Your task to perform on an android device: Go to Yahoo.com Image 0: 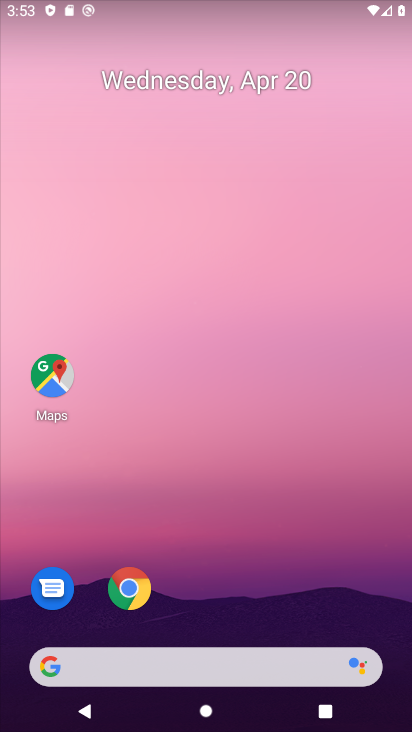
Step 0: click (150, 659)
Your task to perform on an android device: Go to Yahoo.com Image 1: 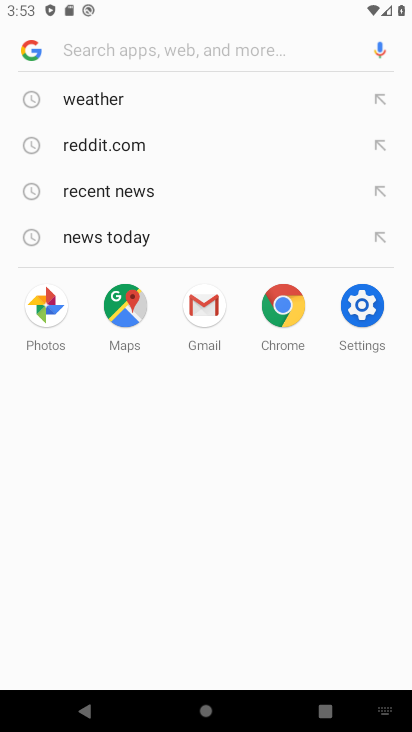
Step 1: type "Yahoo.com"
Your task to perform on an android device: Go to Yahoo.com Image 2: 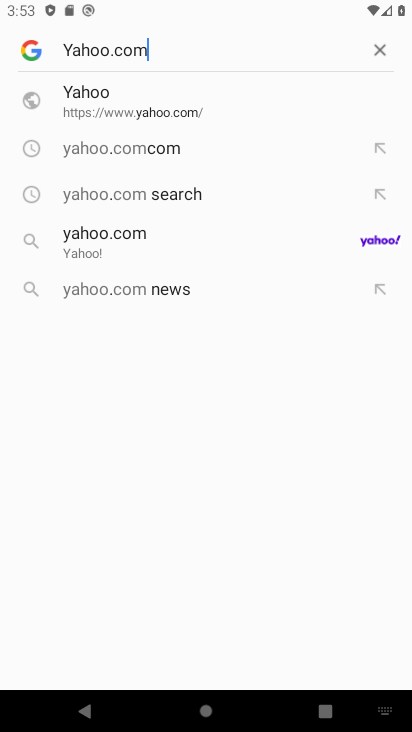
Step 2: click (145, 116)
Your task to perform on an android device: Go to Yahoo.com Image 3: 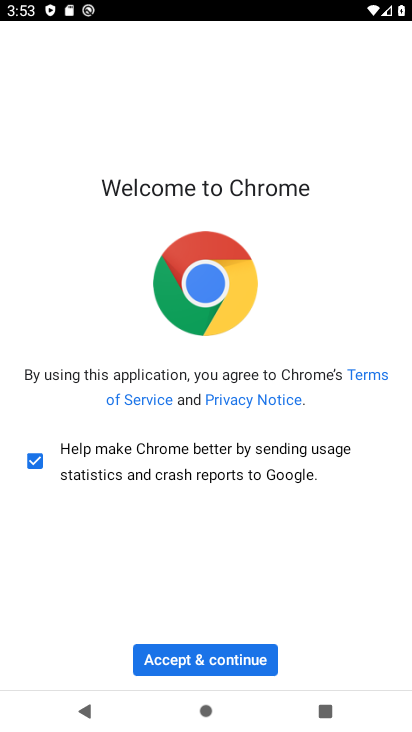
Step 3: click (180, 654)
Your task to perform on an android device: Go to Yahoo.com Image 4: 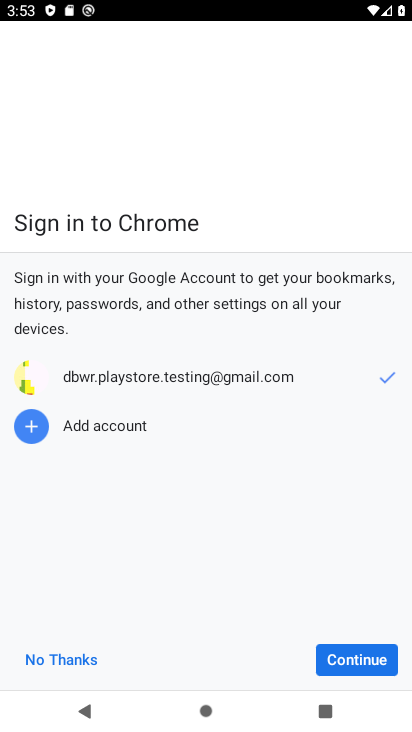
Step 4: click (312, 658)
Your task to perform on an android device: Go to Yahoo.com Image 5: 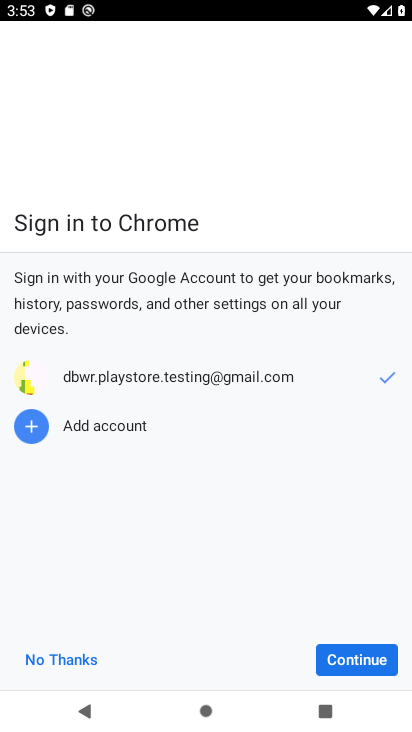
Step 5: click (329, 659)
Your task to perform on an android device: Go to Yahoo.com Image 6: 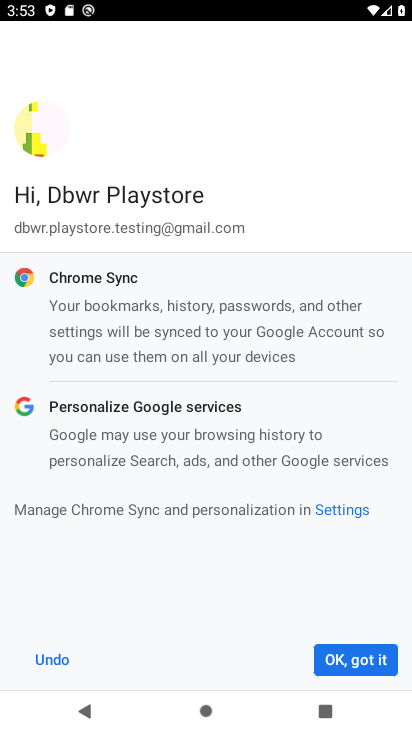
Step 6: click (329, 659)
Your task to perform on an android device: Go to Yahoo.com Image 7: 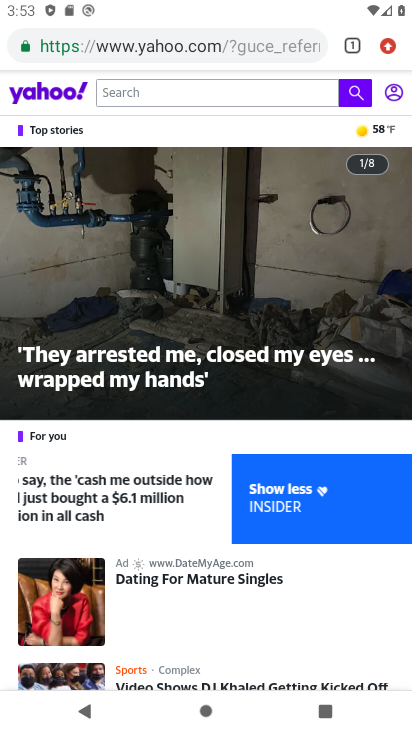
Step 7: task complete